Your task to perform on an android device: View the shopping cart on amazon.com. Search for "asus zenbook" on amazon.com, select the first entry, and add it to the cart. Image 0: 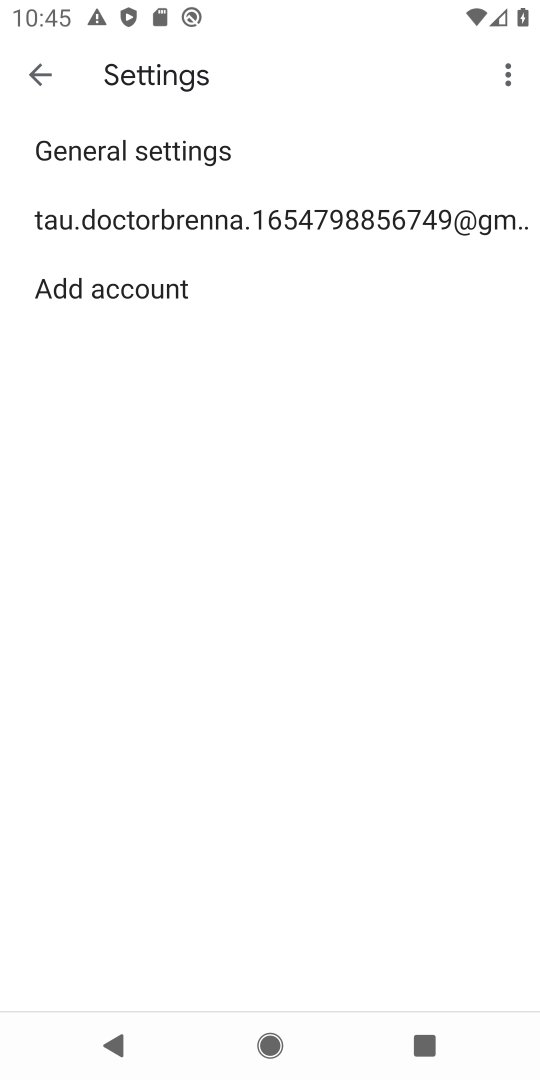
Step 0: press home button
Your task to perform on an android device: View the shopping cart on amazon.com. Search for "asus zenbook" on amazon.com, select the first entry, and add it to the cart. Image 1: 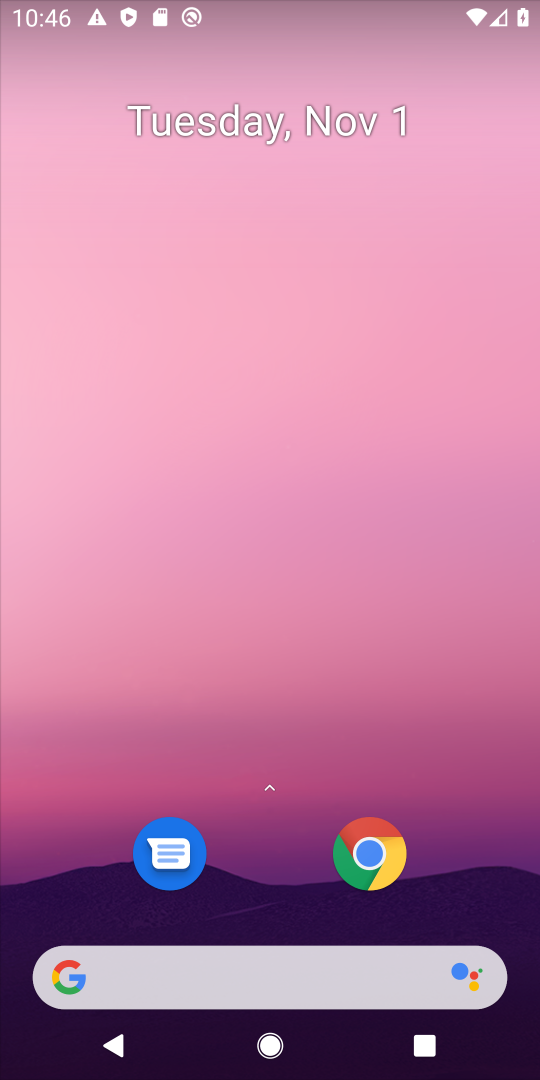
Step 1: click (319, 983)
Your task to perform on an android device: View the shopping cart on amazon.com. Search for "asus zenbook" on amazon.com, select the first entry, and add it to the cart. Image 2: 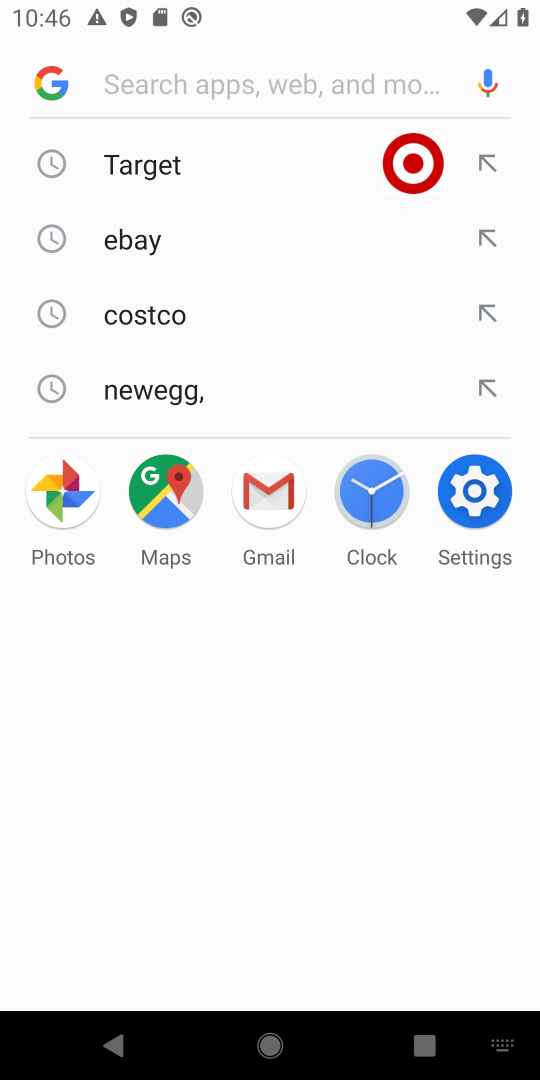
Step 2: type "amazon"
Your task to perform on an android device: View the shopping cart on amazon.com. Search for "asus zenbook" on amazon.com, select the first entry, and add it to the cart. Image 3: 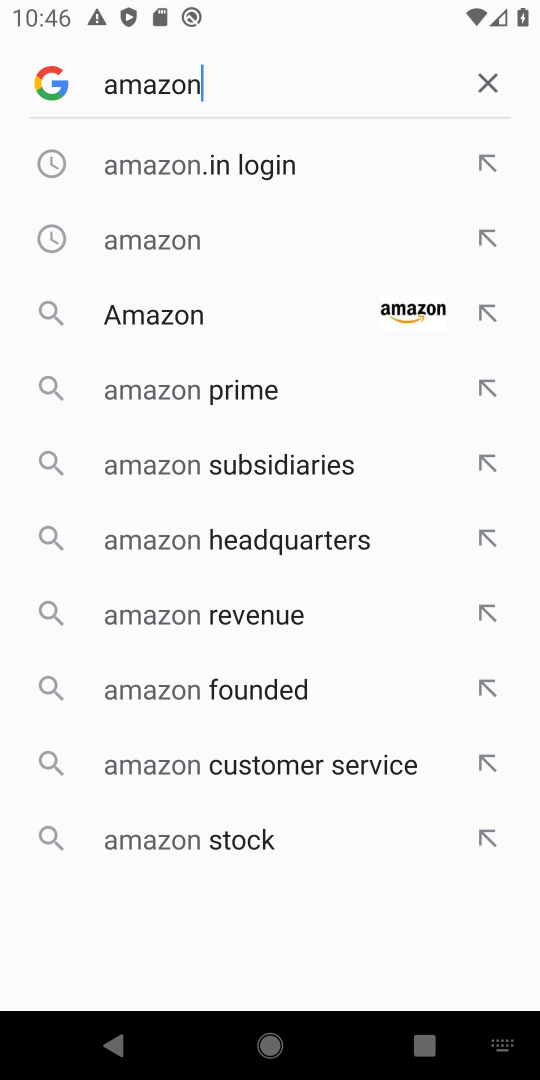
Step 3: click (204, 240)
Your task to perform on an android device: View the shopping cart on amazon.com. Search for "asus zenbook" on amazon.com, select the first entry, and add it to the cart. Image 4: 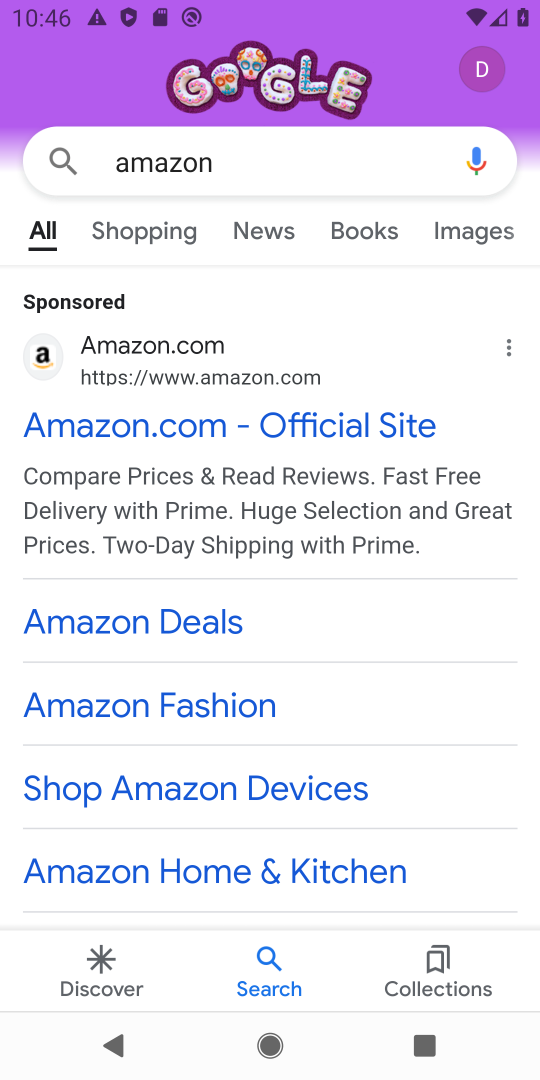
Step 4: click (170, 433)
Your task to perform on an android device: View the shopping cart on amazon.com. Search for "asus zenbook" on amazon.com, select the first entry, and add it to the cart. Image 5: 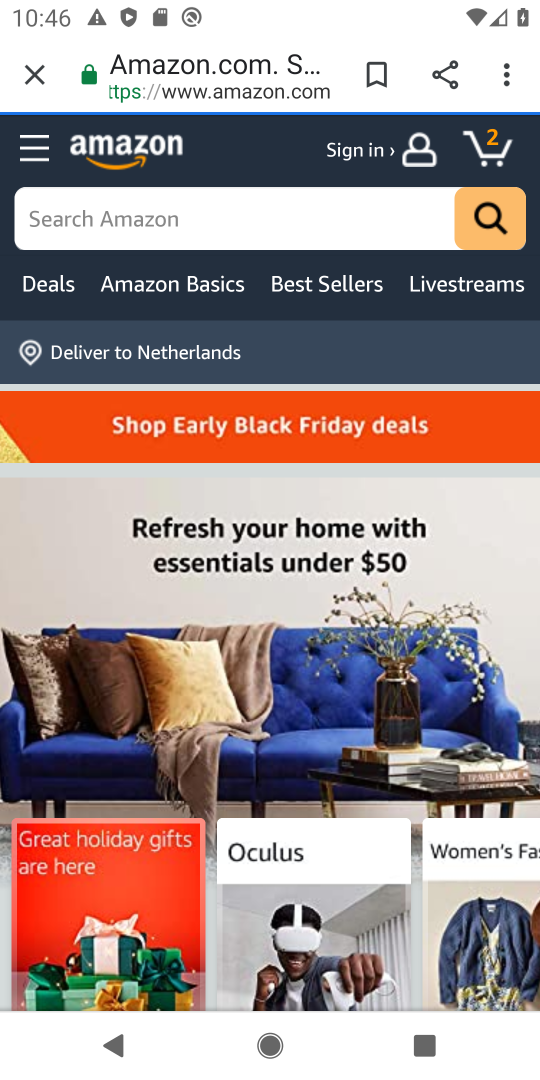
Step 5: click (270, 227)
Your task to perform on an android device: View the shopping cart on amazon.com. Search for "asus zenbook" on amazon.com, select the first entry, and add it to the cart. Image 6: 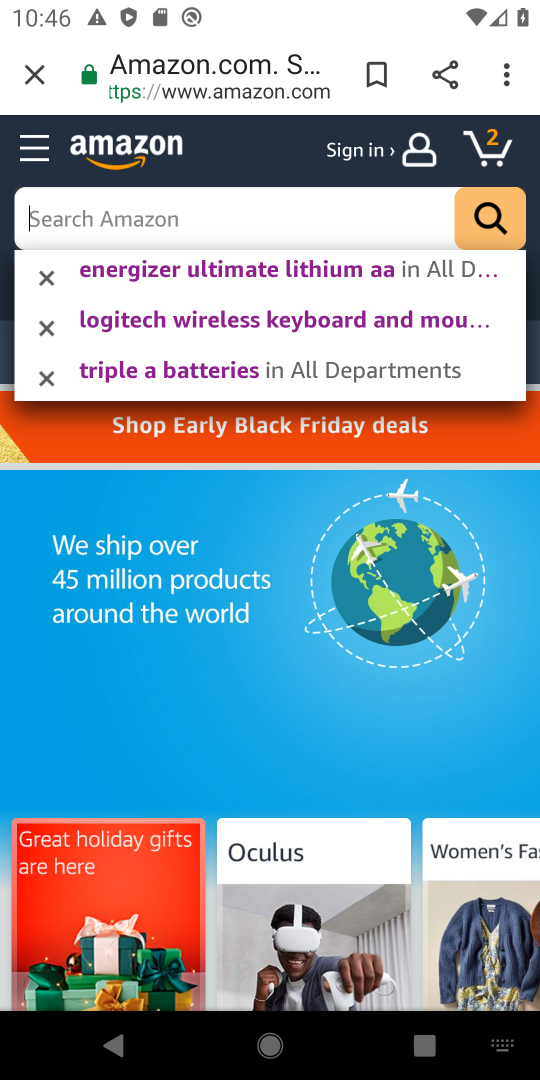
Step 6: type "asus zenbook"
Your task to perform on an android device: View the shopping cart on amazon.com. Search for "asus zenbook" on amazon.com, select the first entry, and add it to the cart. Image 7: 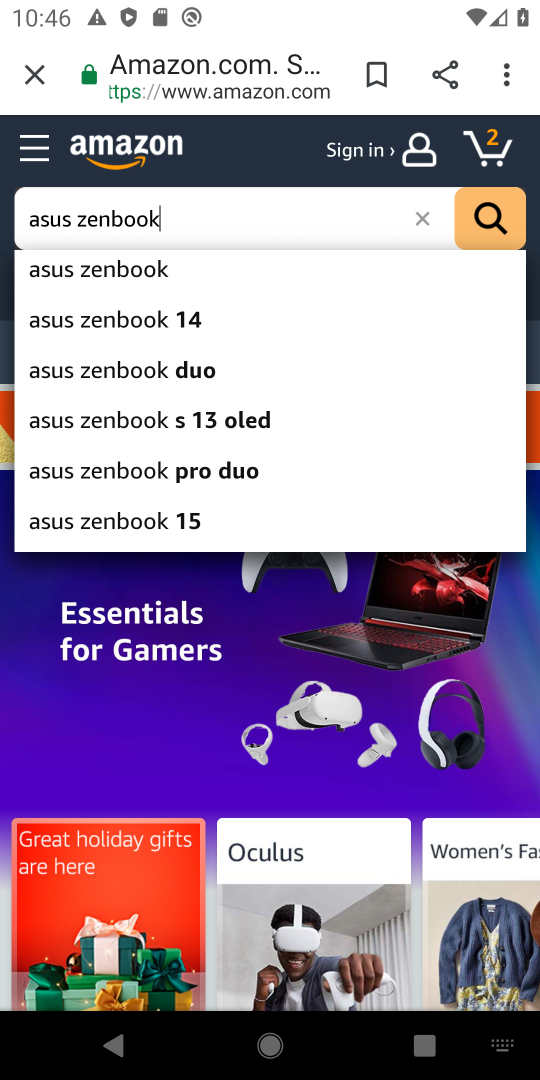
Step 7: click (163, 263)
Your task to perform on an android device: View the shopping cart on amazon.com. Search for "asus zenbook" on amazon.com, select the first entry, and add it to the cart. Image 8: 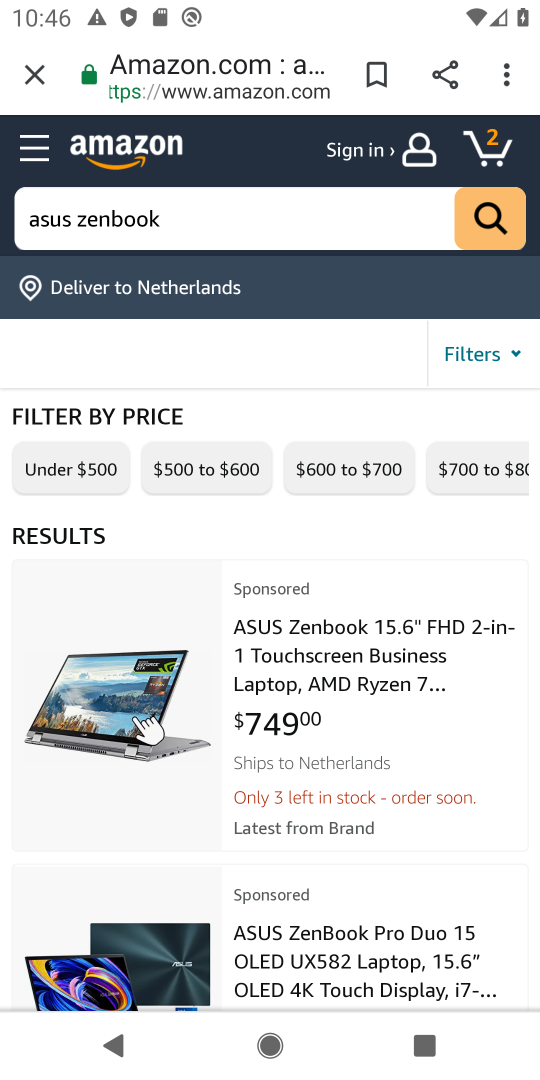
Step 8: click (504, 234)
Your task to perform on an android device: View the shopping cart on amazon.com. Search for "asus zenbook" on amazon.com, select the first entry, and add it to the cart. Image 9: 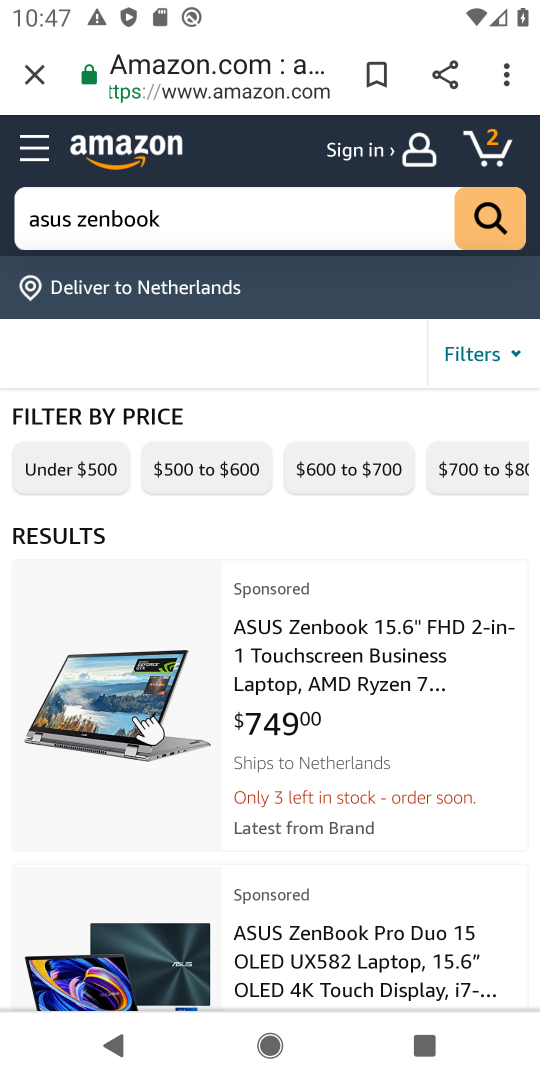
Step 9: click (156, 226)
Your task to perform on an android device: View the shopping cart on amazon.com. Search for "asus zenbook" on amazon.com, select the first entry, and add it to the cart. Image 10: 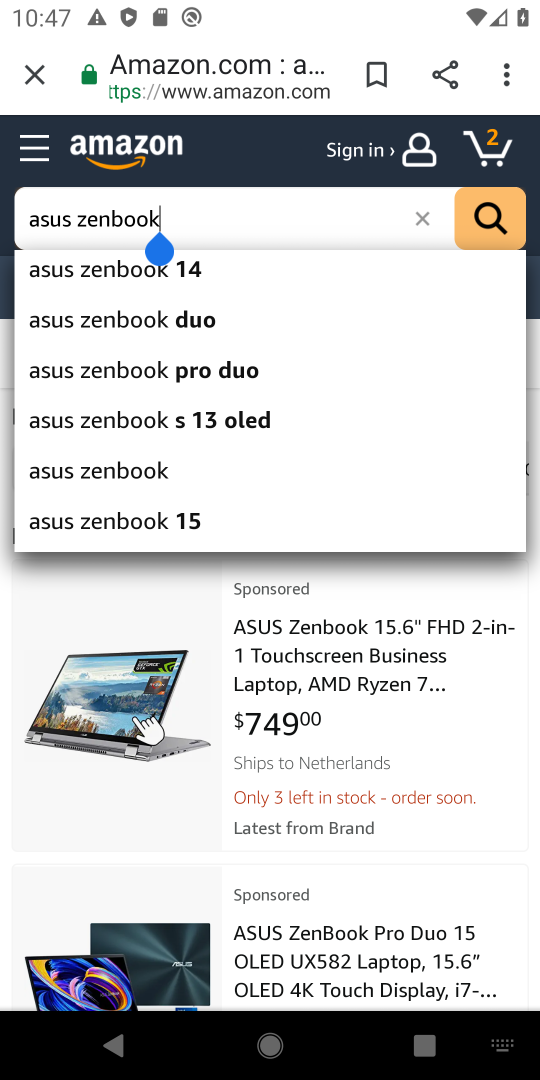
Step 10: click (479, 214)
Your task to perform on an android device: View the shopping cart on amazon.com. Search for "asus zenbook" on amazon.com, select the first entry, and add it to the cart. Image 11: 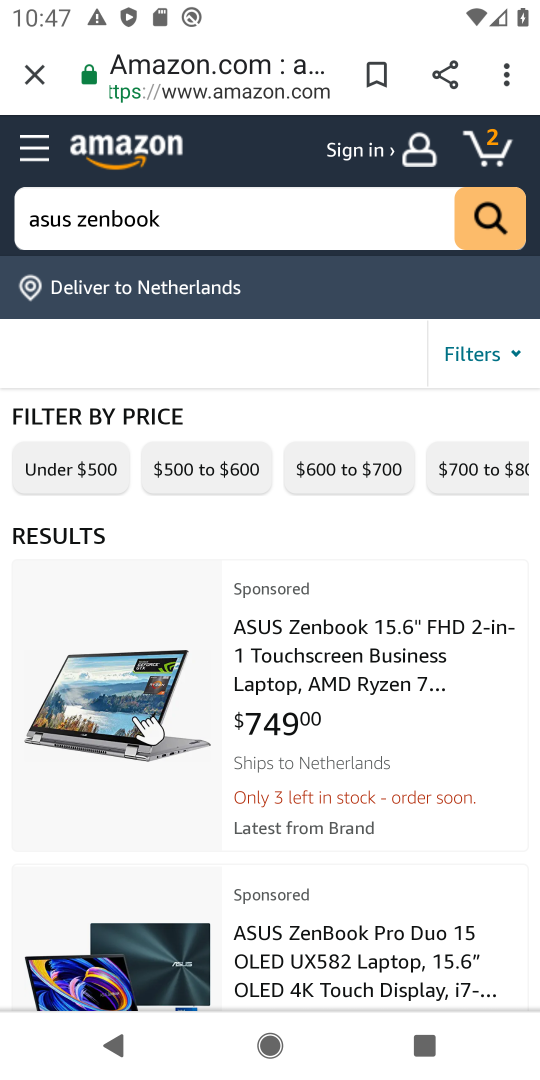
Step 11: click (440, 657)
Your task to perform on an android device: View the shopping cart on amazon.com. Search for "asus zenbook" on amazon.com, select the first entry, and add it to the cart. Image 12: 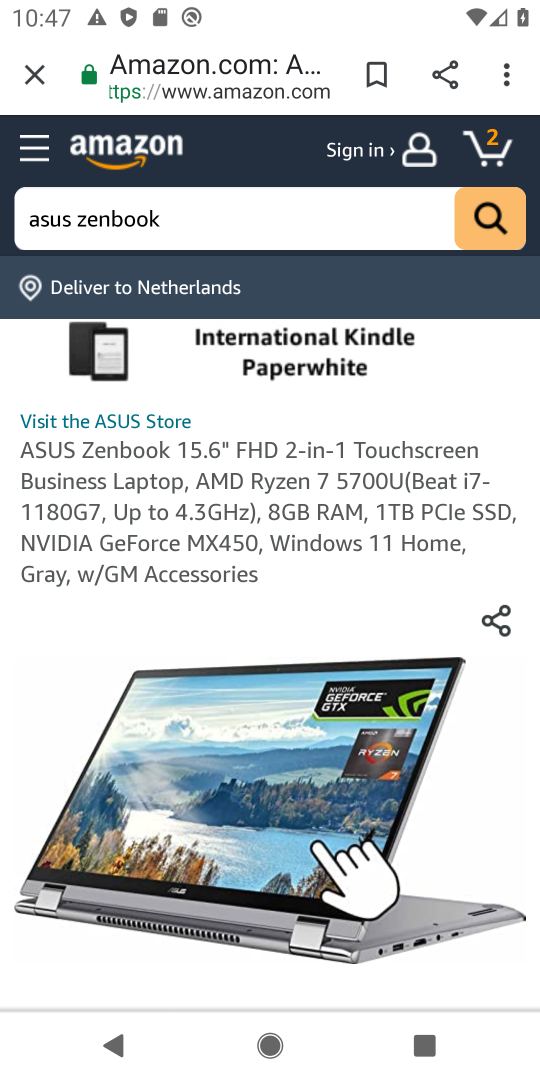
Step 12: drag from (220, 892) to (208, 409)
Your task to perform on an android device: View the shopping cart on amazon.com. Search for "asus zenbook" on amazon.com, select the first entry, and add it to the cart. Image 13: 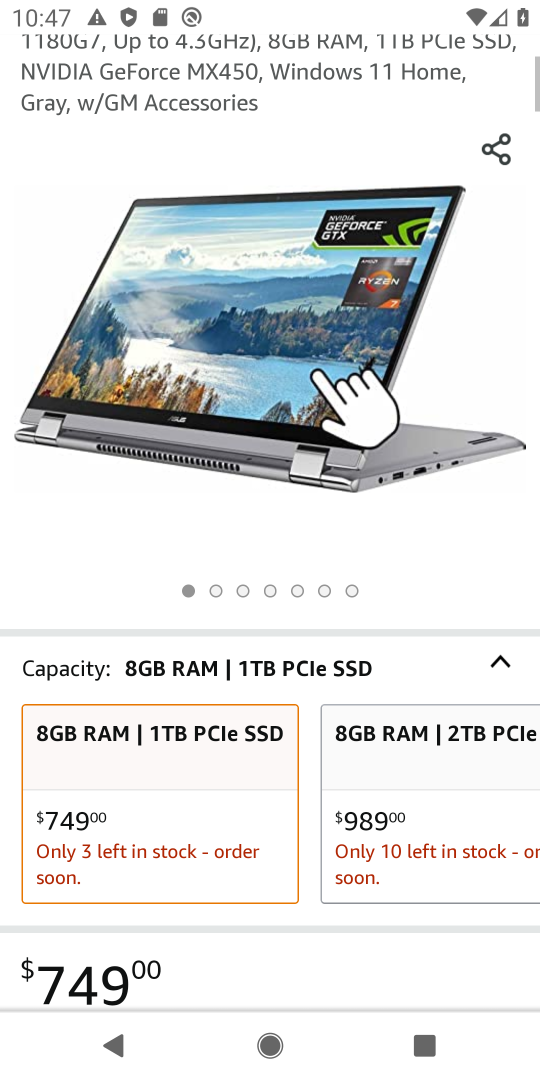
Step 13: click (208, 409)
Your task to perform on an android device: View the shopping cart on amazon.com. Search for "asus zenbook" on amazon.com, select the first entry, and add it to the cart. Image 14: 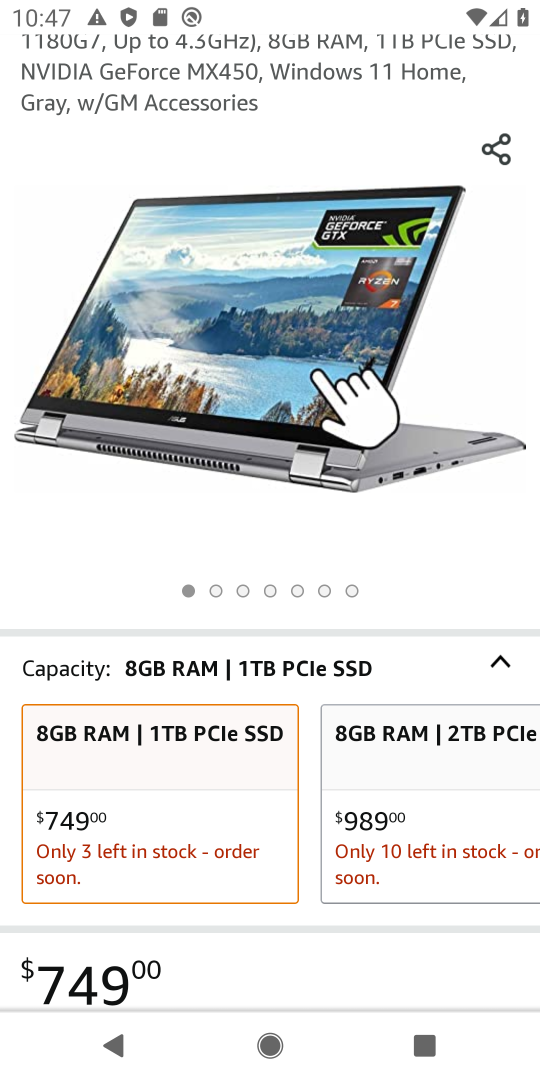
Step 14: drag from (233, 969) to (239, 665)
Your task to perform on an android device: View the shopping cart on amazon.com. Search for "asus zenbook" on amazon.com, select the first entry, and add it to the cart. Image 15: 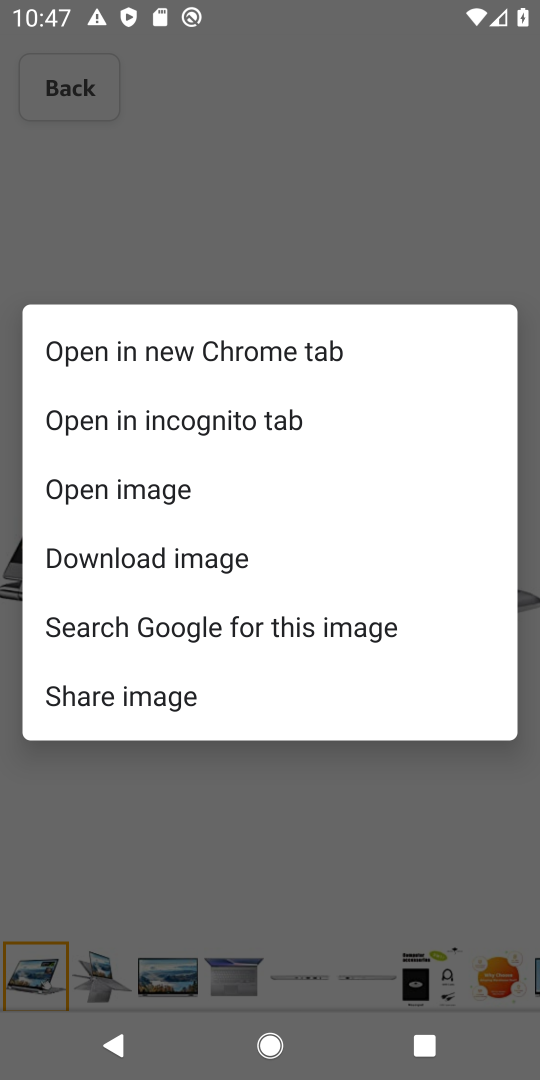
Step 15: click (215, 823)
Your task to perform on an android device: View the shopping cart on amazon.com. Search for "asus zenbook" on amazon.com, select the first entry, and add it to the cart. Image 16: 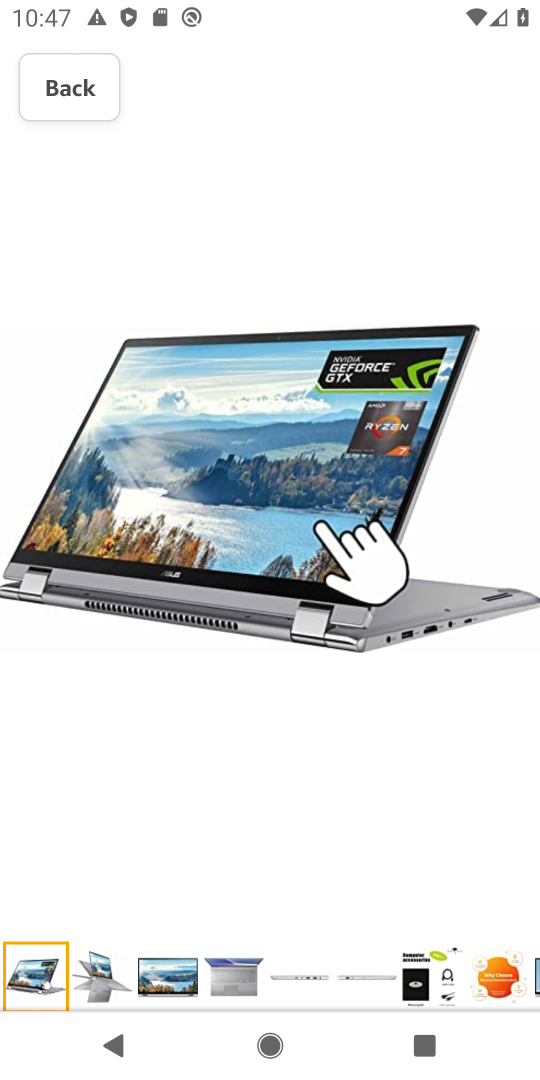
Step 16: drag from (215, 823) to (236, 270)
Your task to perform on an android device: View the shopping cart on amazon.com. Search for "asus zenbook" on amazon.com, select the first entry, and add it to the cart. Image 17: 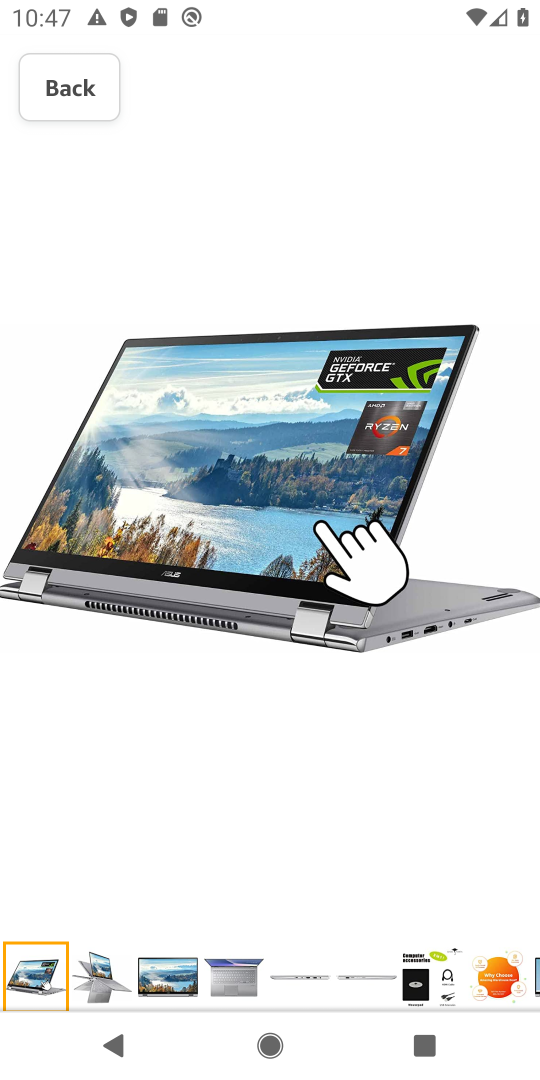
Step 17: press back button
Your task to perform on an android device: View the shopping cart on amazon.com. Search for "asus zenbook" on amazon.com, select the first entry, and add it to the cart. Image 18: 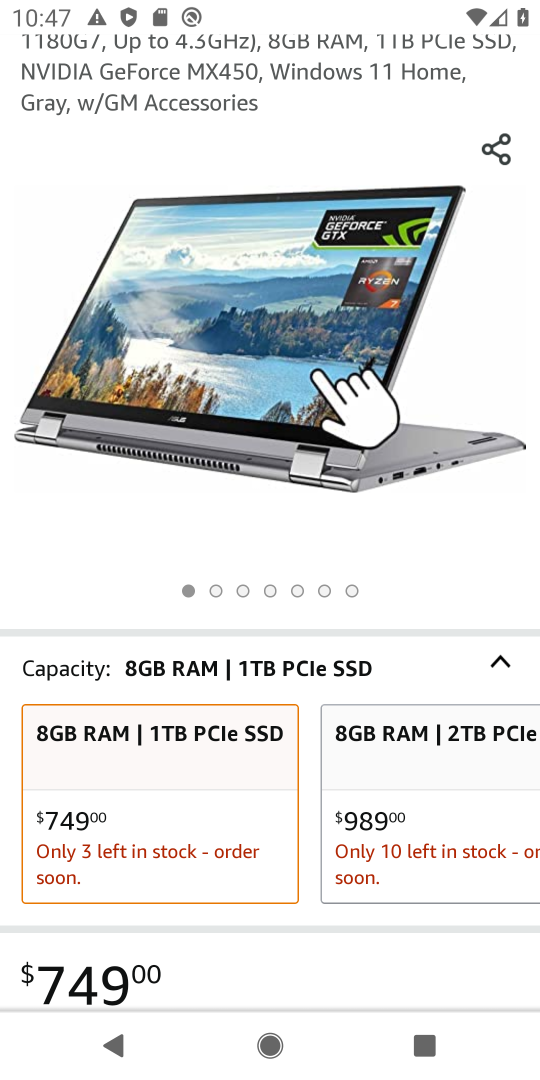
Step 18: drag from (292, 956) to (292, 490)
Your task to perform on an android device: View the shopping cart on amazon.com. Search for "asus zenbook" on amazon.com, select the first entry, and add it to the cart. Image 19: 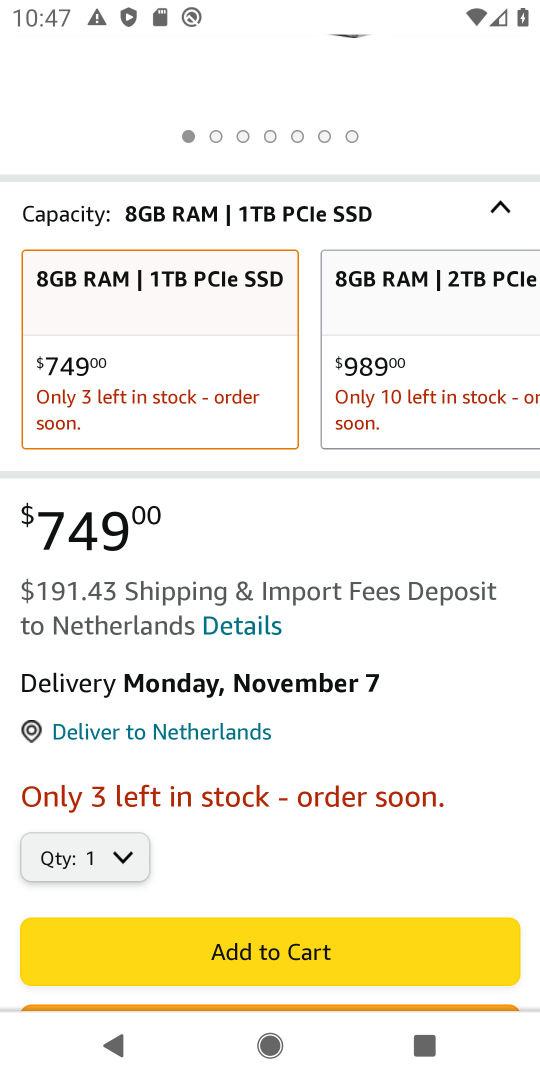
Step 19: click (179, 941)
Your task to perform on an android device: View the shopping cart on amazon.com. Search for "asus zenbook" on amazon.com, select the first entry, and add it to the cart. Image 20: 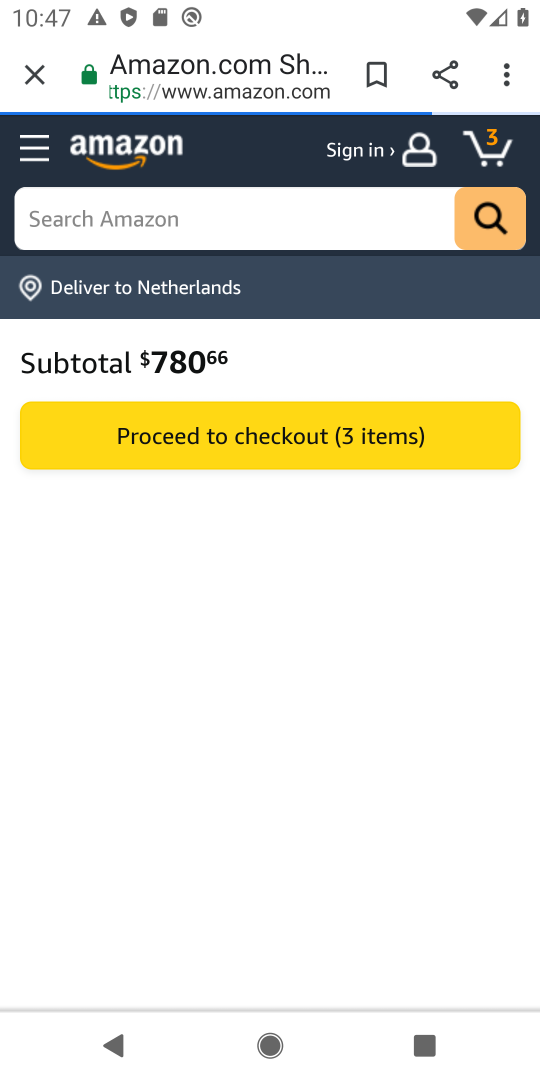
Step 20: task complete